Your task to perform on an android device: Show me productivity apps on the Play Store Image 0: 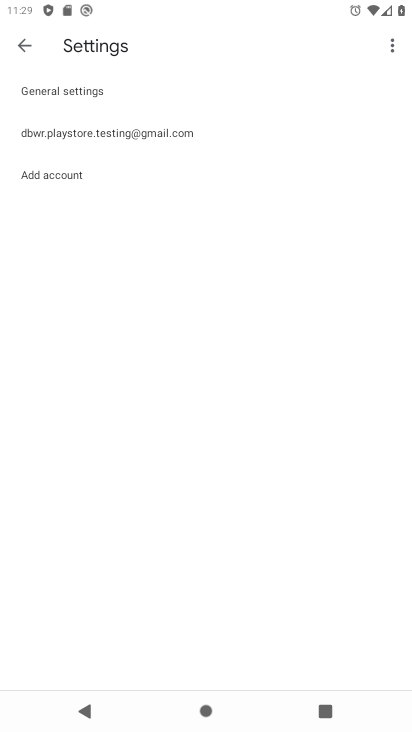
Step 0: press back button
Your task to perform on an android device: Show me productivity apps on the Play Store Image 1: 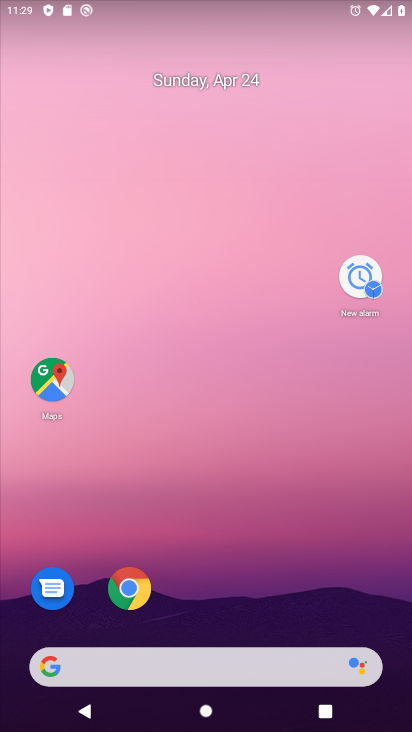
Step 1: drag from (161, 645) to (271, 6)
Your task to perform on an android device: Show me productivity apps on the Play Store Image 2: 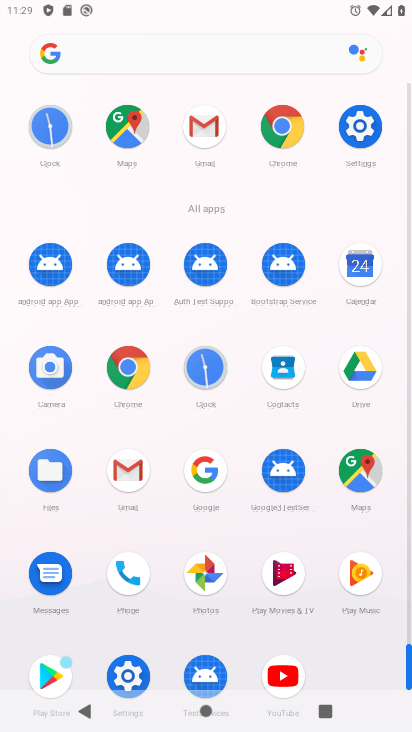
Step 2: click (52, 655)
Your task to perform on an android device: Show me productivity apps on the Play Store Image 3: 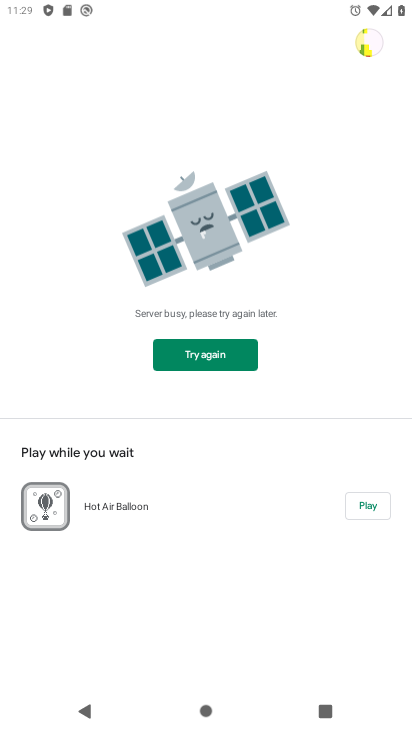
Step 3: task complete